Your task to perform on an android device: Open privacy settings Image 0: 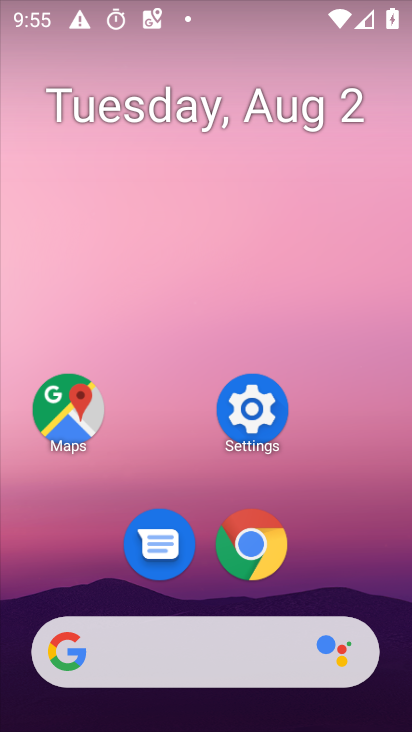
Step 0: press home button
Your task to perform on an android device: Open privacy settings Image 1: 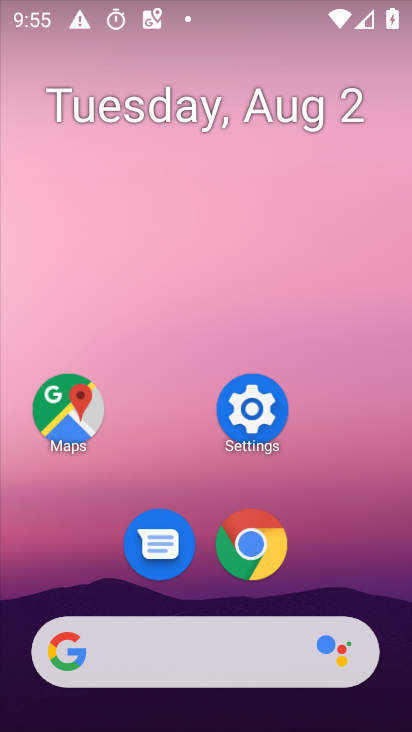
Step 1: click (254, 409)
Your task to perform on an android device: Open privacy settings Image 2: 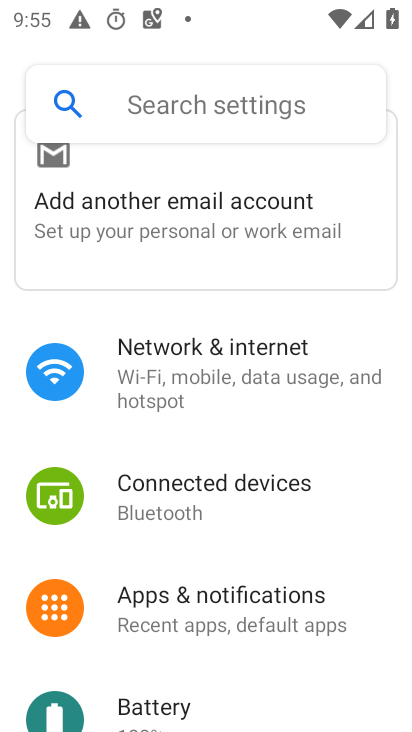
Step 2: drag from (220, 605) to (357, 245)
Your task to perform on an android device: Open privacy settings Image 3: 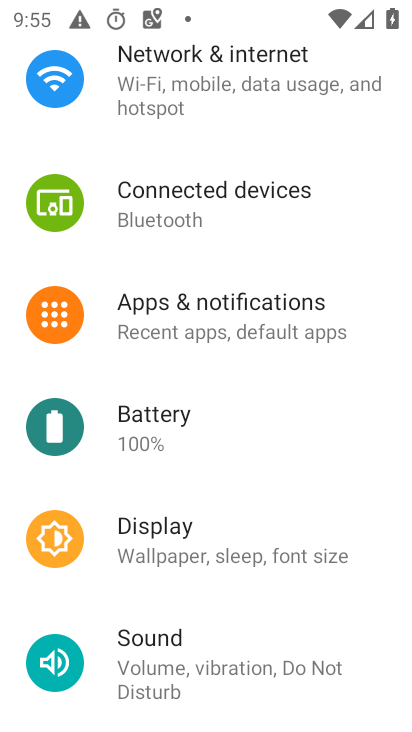
Step 3: drag from (189, 641) to (299, 225)
Your task to perform on an android device: Open privacy settings Image 4: 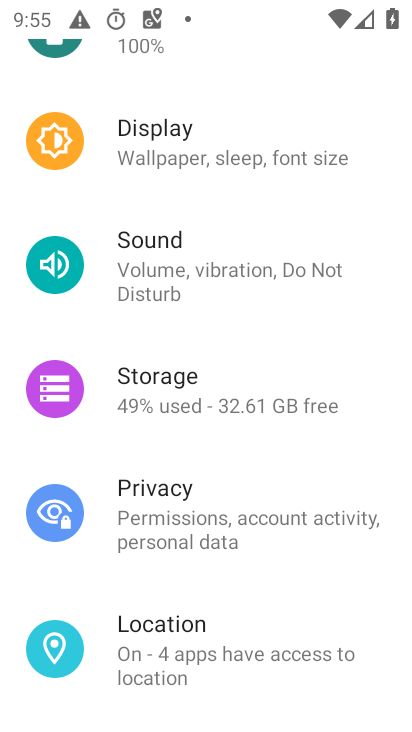
Step 4: click (196, 512)
Your task to perform on an android device: Open privacy settings Image 5: 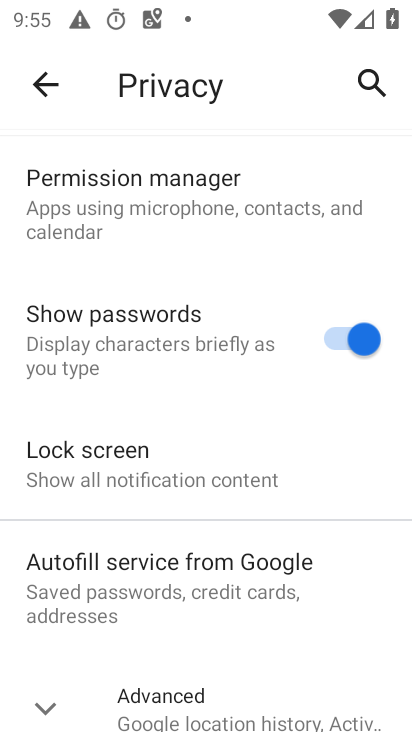
Step 5: task complete